Your task to perform on an android device: open sync settings in chrome Image 0: 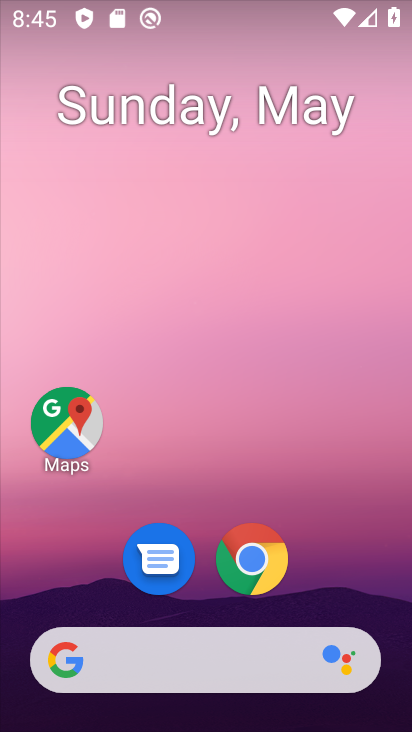
Step 0: click (271, 579)
Your task to perform on an android device: open sync settings in chrome Image 1: 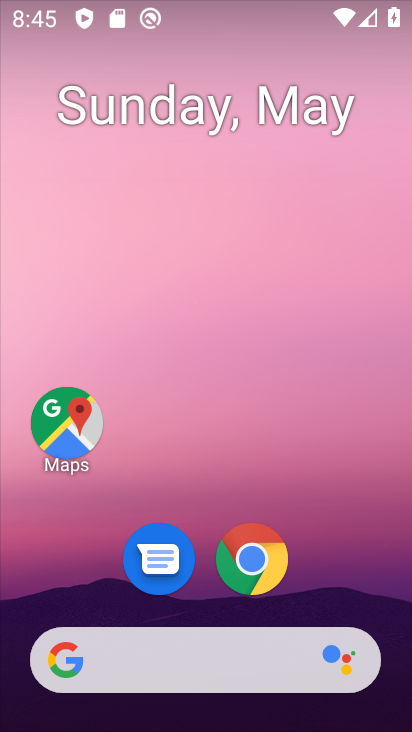
Step 1: click (259, 561)
Your task to perform on an android device: open sync settings in chrome Image 2: 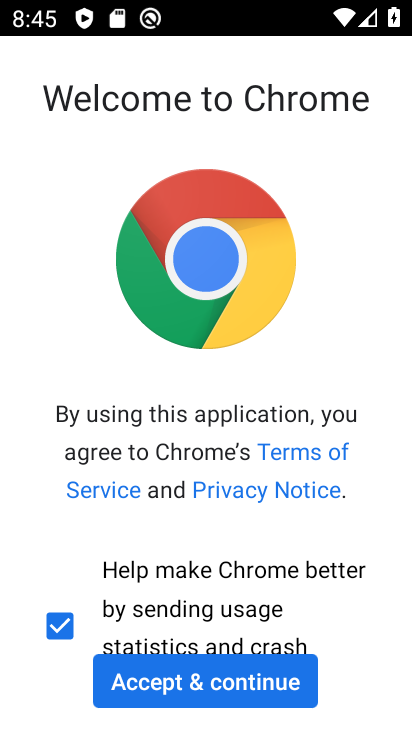
Step 2: click (235, 670)
Your task to perform on an android device: open sync settings in chrome Image 3: 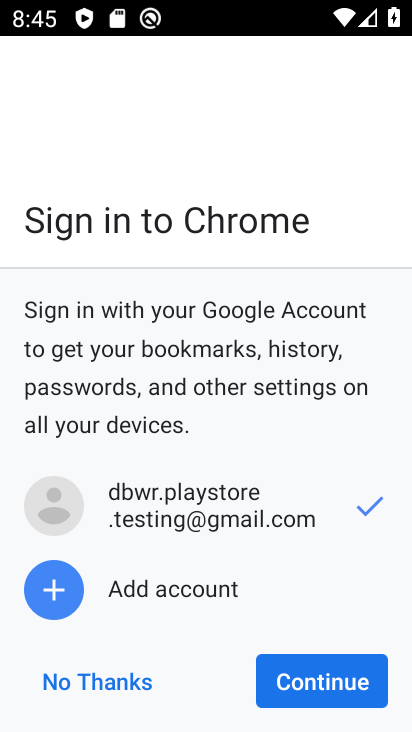
Step 3: click (289, 680)
Your task to perform on an android device: open sync settings in chrome Image 4: 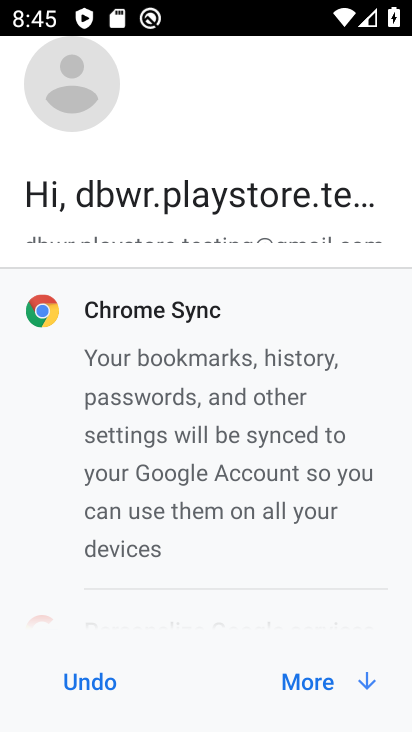
Step 4: click (299, 695)
Your task to perform on an android device: open sync settings in chrome Image 5: 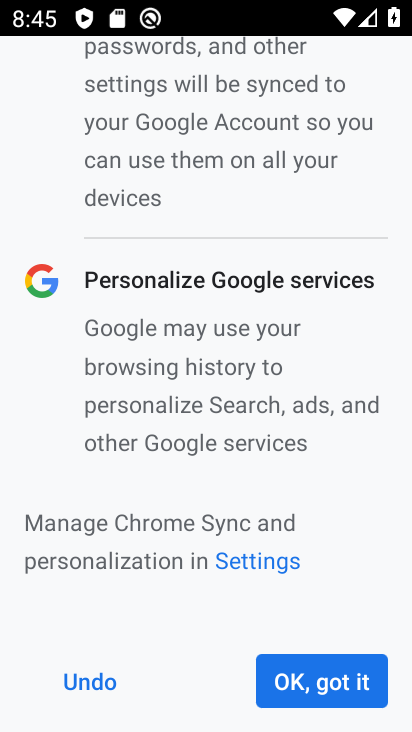
Step 5: click (299, 694)
Your task to perform on an android device: open sync settings in chrome Image 6: 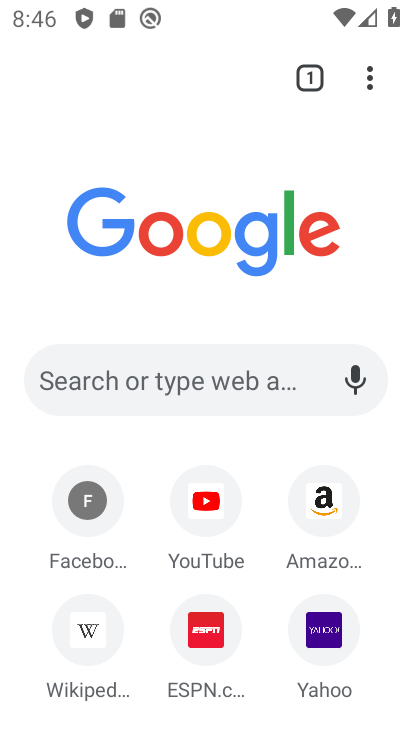
Step 6: click (377, 99)
Your task to perform on an android device: open sync settings in chrome Image 7: 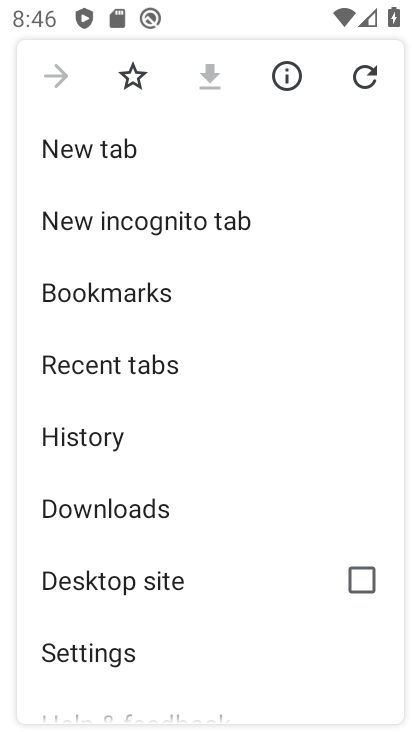
Step 7: click (138, 643)
Your task to perform on an android device: open sync settings in chrome Image 8: 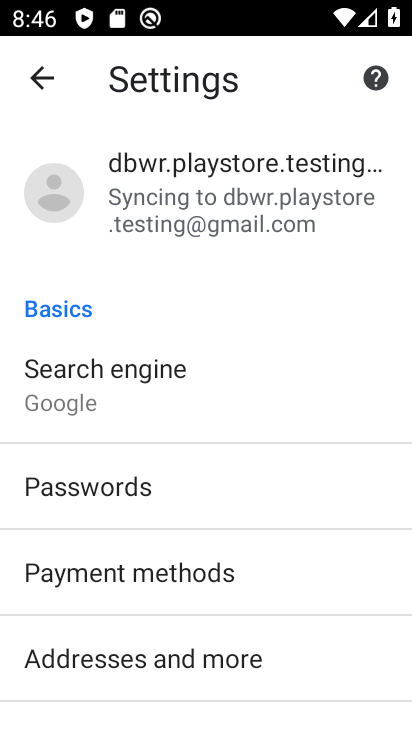
Step 8: drag from (165, 597) to (127, 291)
Your task to perform on an android device: open sync settings in chrome Image 9: 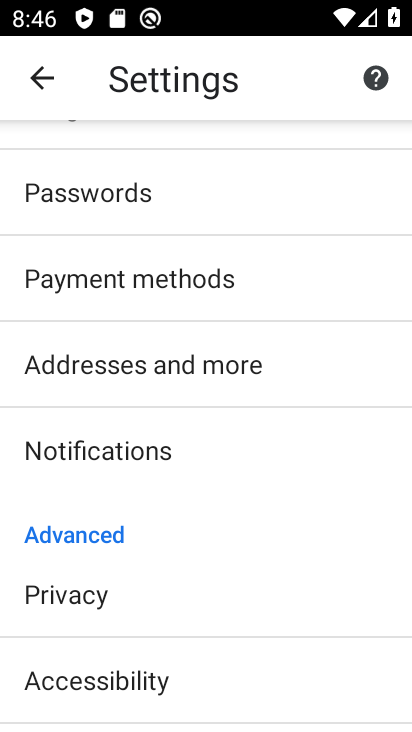
Step 9: drag from (147, 598) to (110, 700)
Your task to perform on an android device: open sync settings in chrome Image 10: 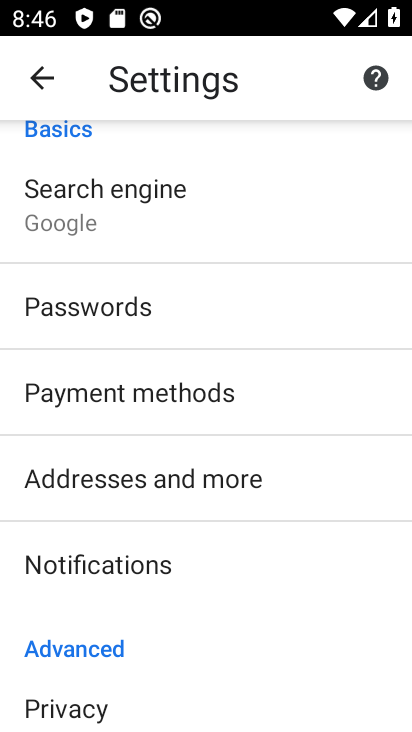
Step 10: drag from (131, 271) to (113, 221)
Your task to perform on an android device: open sync settings in chrome Image 11: 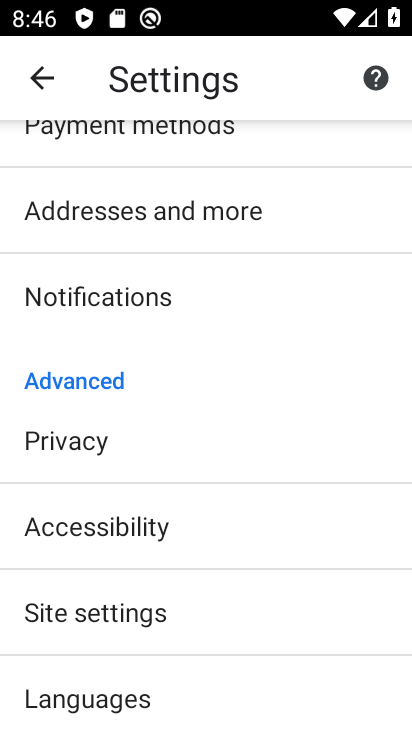
Step 11: drag from (155, 578) to (141, 229)
Your task to perform on an android device: open sync settings in chrome Image 12: 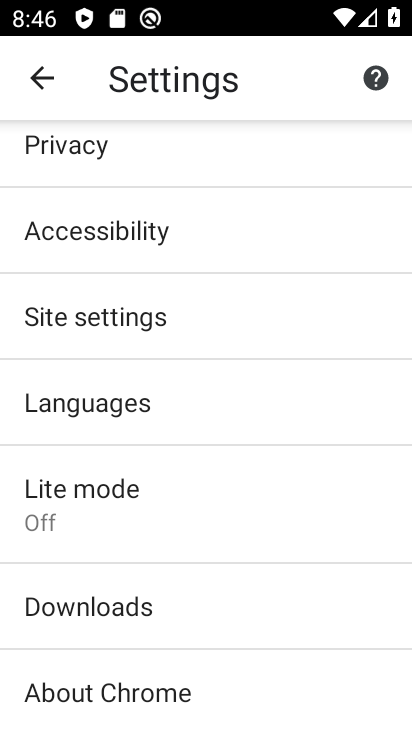
Step 12: drag from (172, 216) to (106, 673)
Your task to perform on an android device: open sync settings in chrome Image 13: 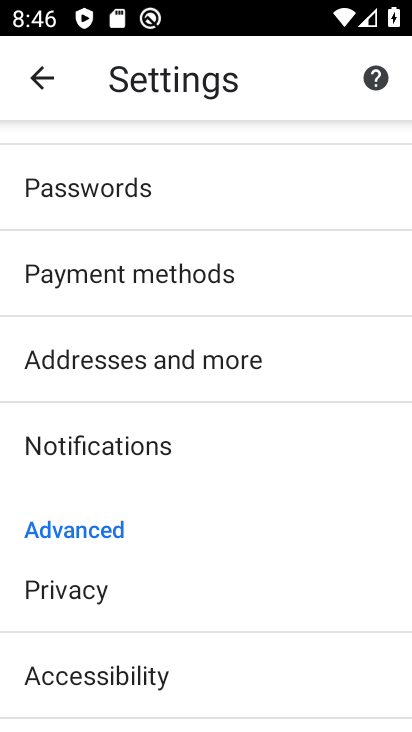
Step 13: drag from (200, 301) to (121, 708)
Your task to perform on an android device: open sync settings in chrome Image 14: 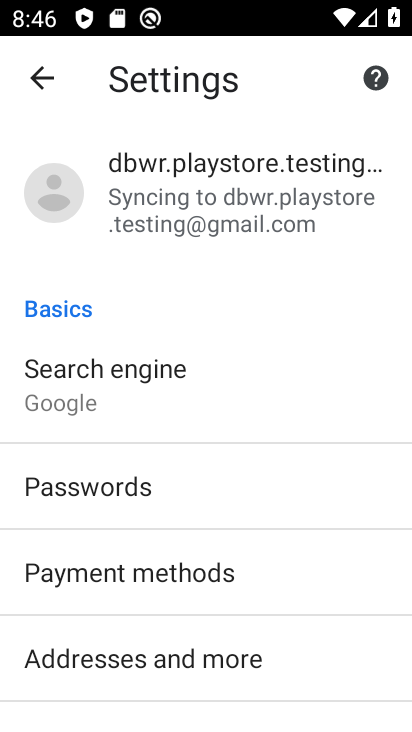
Step 14: click (129, 208)
Your task to perform on an android device: open sync settings in chrome Image 15: 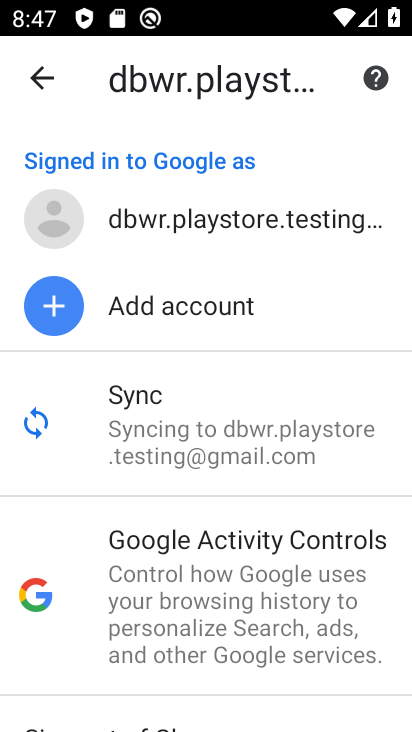
Step 15: click (161, 414)
Your task to perform on an android device: open sync settings in chrome Image 16: 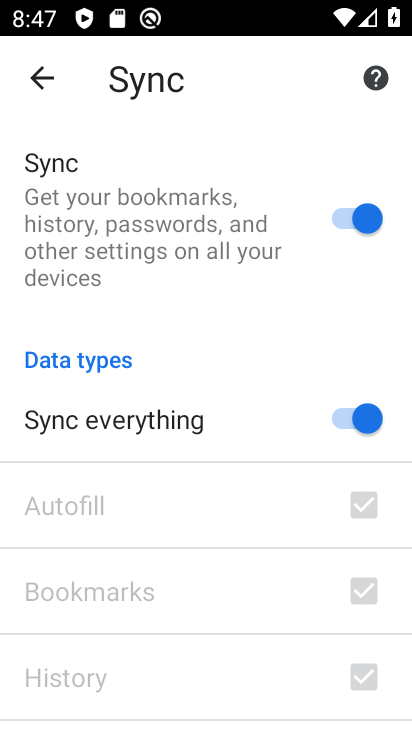
Step 16: click (191, 568)
Your task to perform on an android device: open sync settings in chrome Image 17: 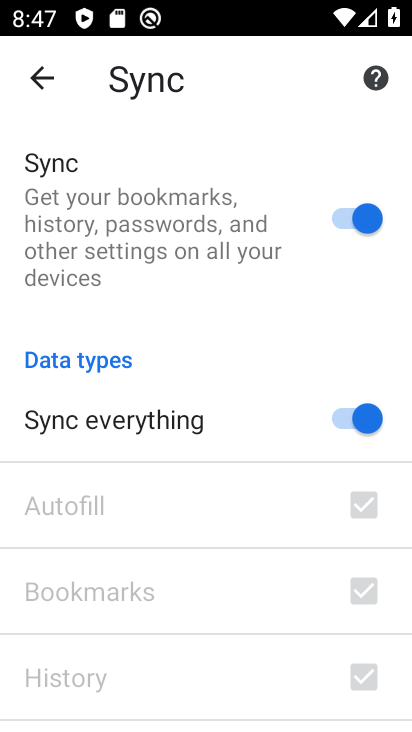
Step 17: task complete